Your task to perform on an android device: Open wifi settings Image 0: 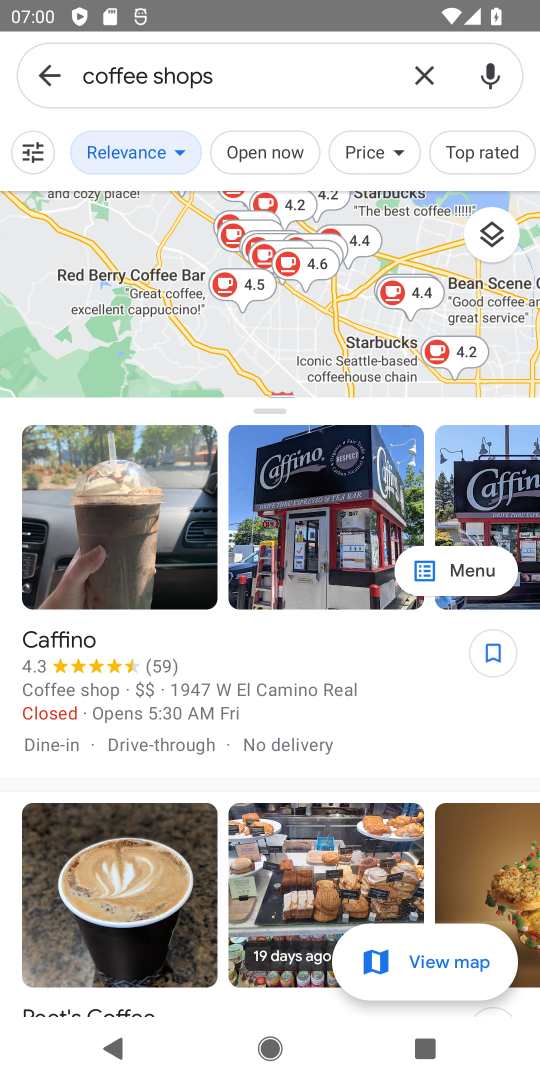
Step 0: press home button
Your task to perform on an android device: Open wifi settings Image 1: 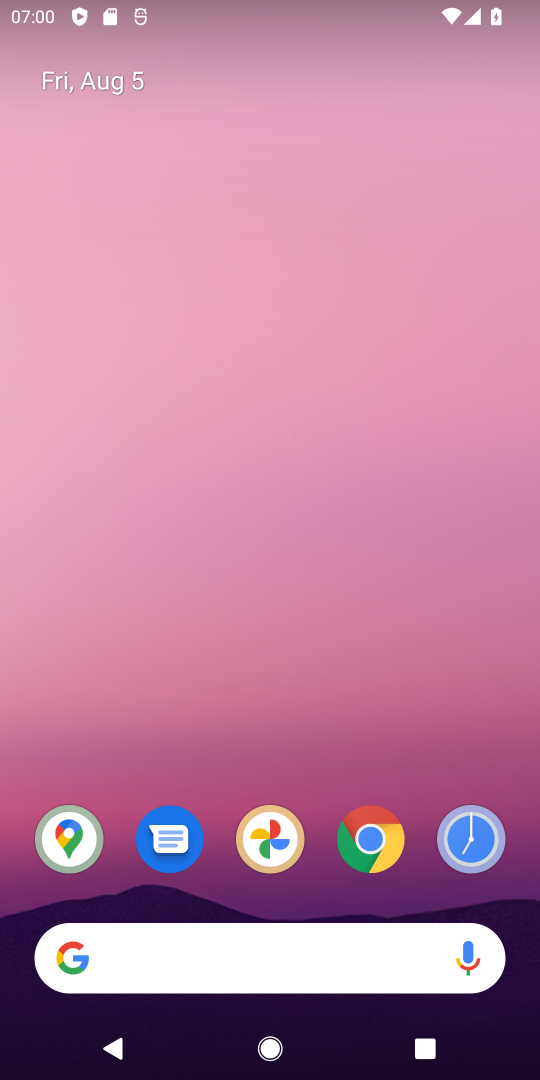
Step 1: drag from (321, 846) to (304, 127)
Your task to perform on an android device: Open wifi settings Image 2: 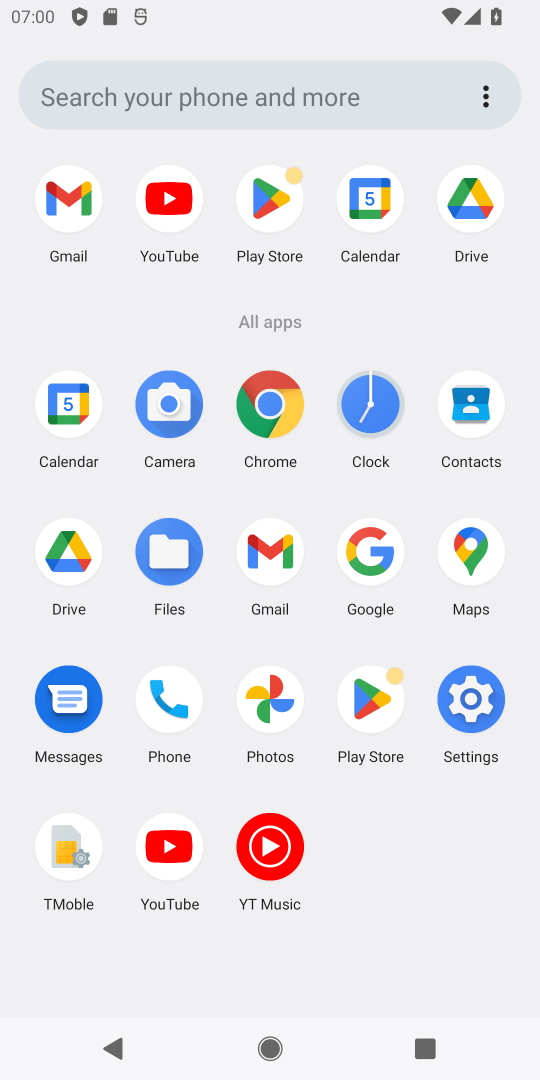
Step 2: click (475, 709)
Your task to perform on an android device: Open wifi settings Image 3: 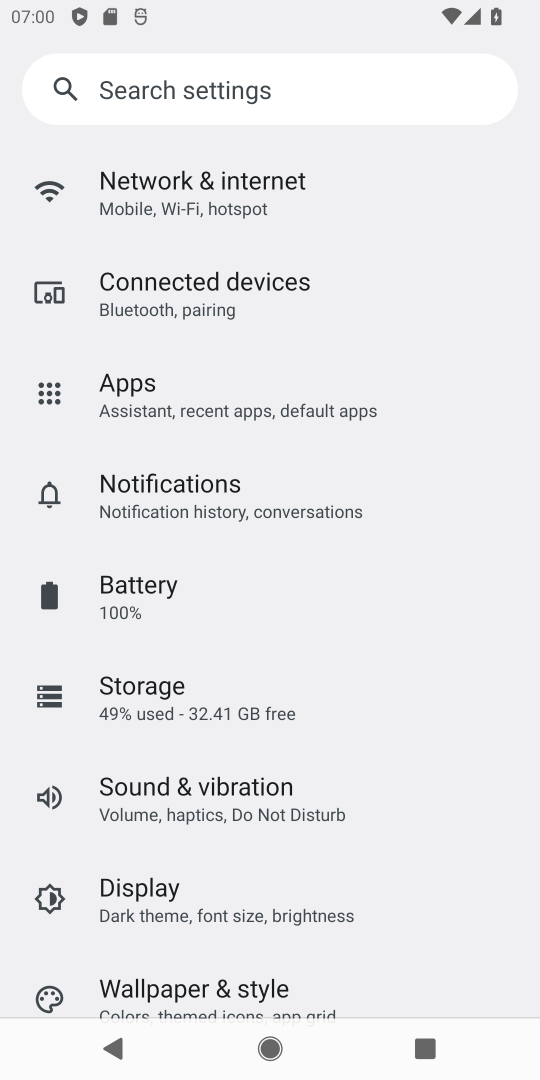
Step 3: drag from (258, 230) to (283, 580)
Your task to perform on an android device: Open wifi settings Image 4: 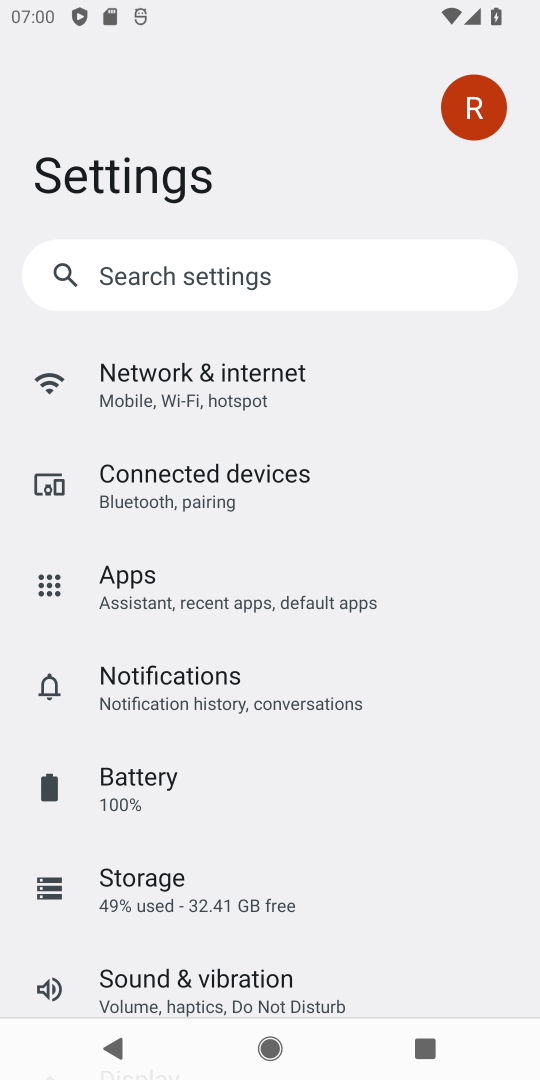
Step 4: click (195, 394)
Your task to perform on an android device: Open wifi settings Image 5: 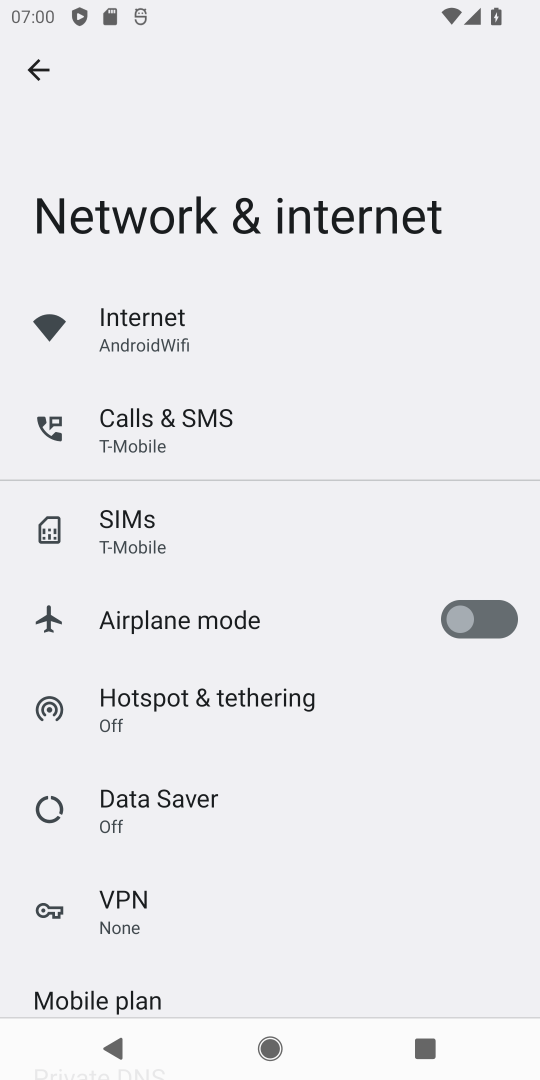
Step 5: click (147, 325)
Your task to perform on an android device: Open wifi settings Image 6: 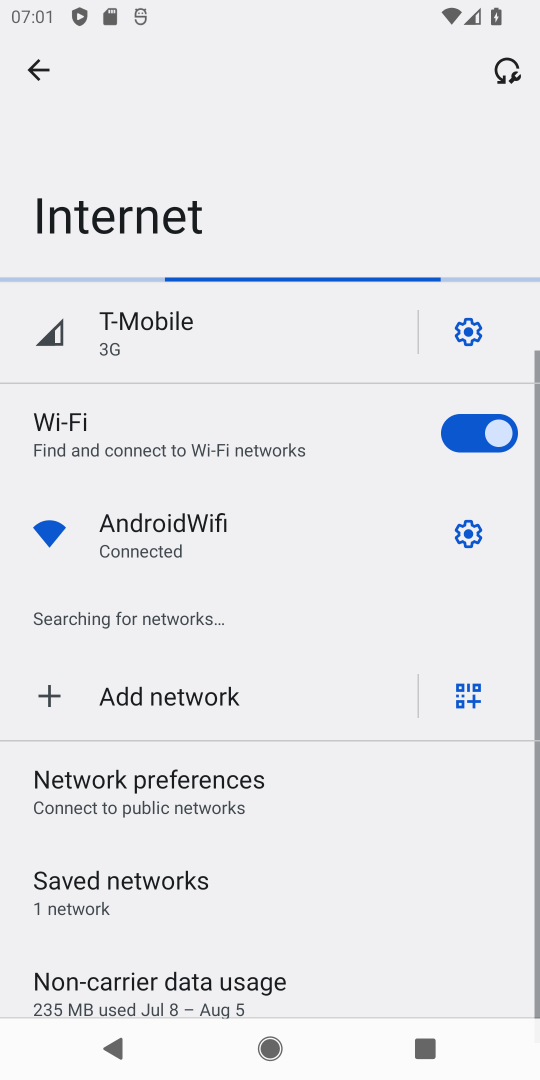
Step 6: click (187, 526)
Your task to perform on an android device: Open wifi settings Image 7: 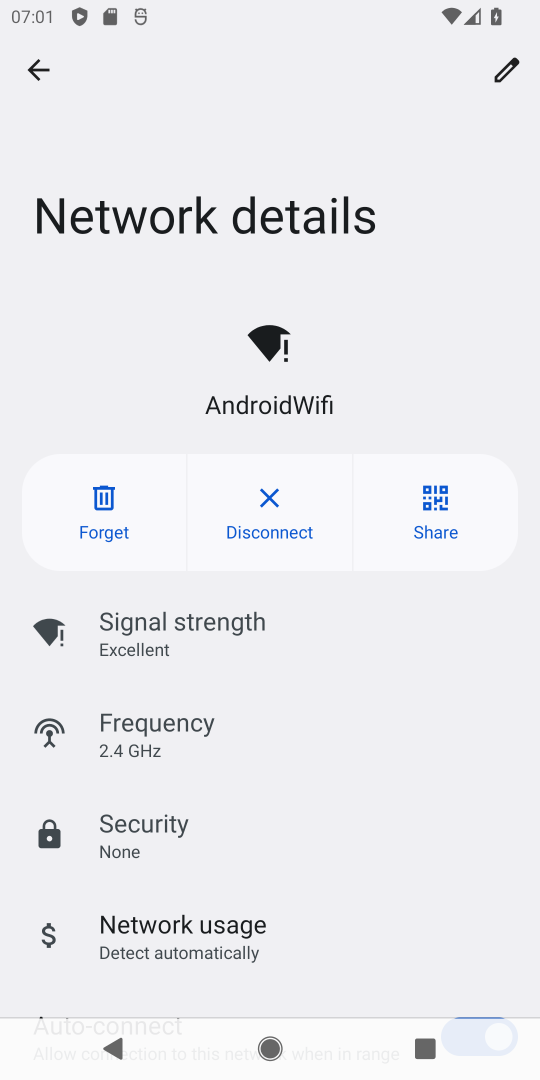
Step 7: task complete